Your task to perform on an android device: Go to internet settings Image 0: 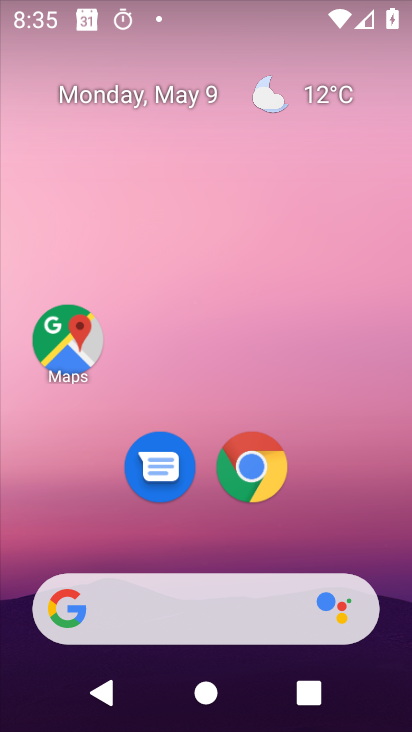
Step 0: drag from (337, 554) to (316, 2)
Your task to perform on an android device: Go to internet settings Image 1: 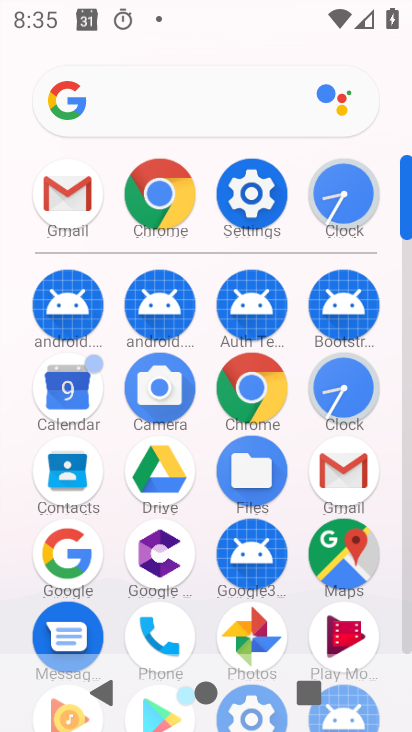
Step 1: click (250, 204)
Your task to perform on an android device: Go to internet settings Image 2: 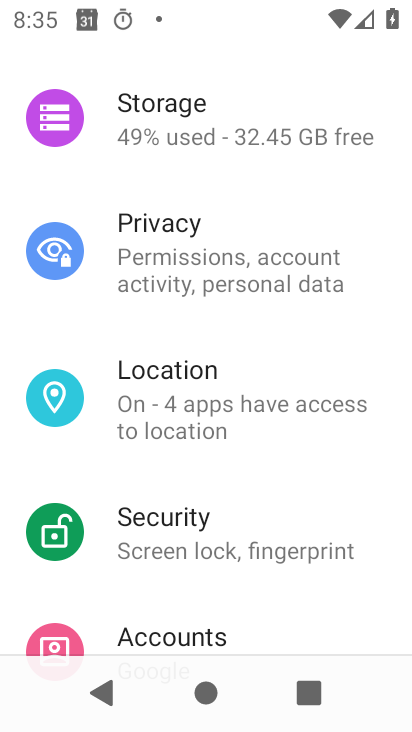
Step 2: drag from (371, 206) to (377, 477)
Your task to perform on an android device: Go to internet settings Image 3: 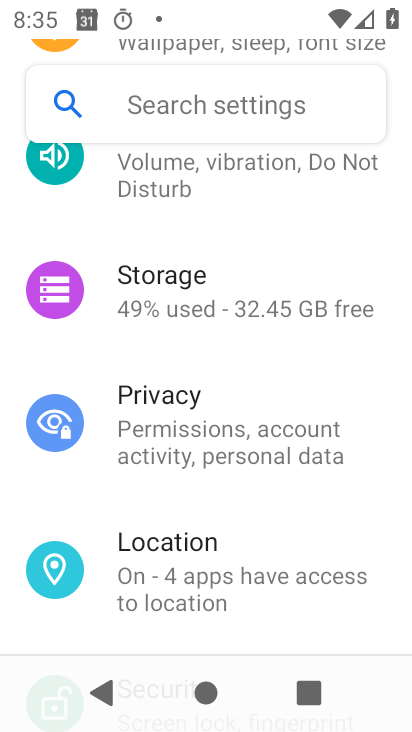
Step 3: drag from (353, 276) to (370, 602)
Your task to perform on an android device: Go to internet settings Image 4: 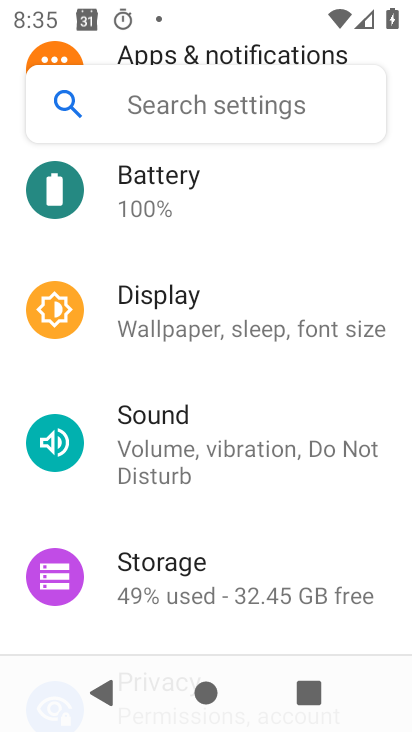
Step 4: drag from (361, 277) to (359, 599)
Your task to perform on an android device: Go to internet settings Image 5: 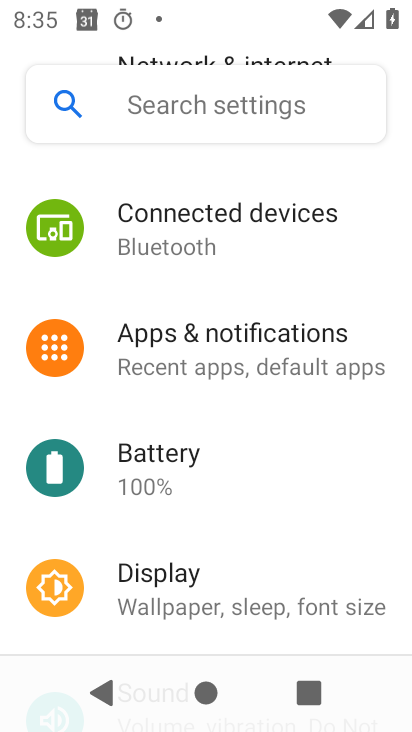
Step 5: drag from (320, 297) to (318, 578)
Your task to perform on an android device: Go to internet settings Image 6: 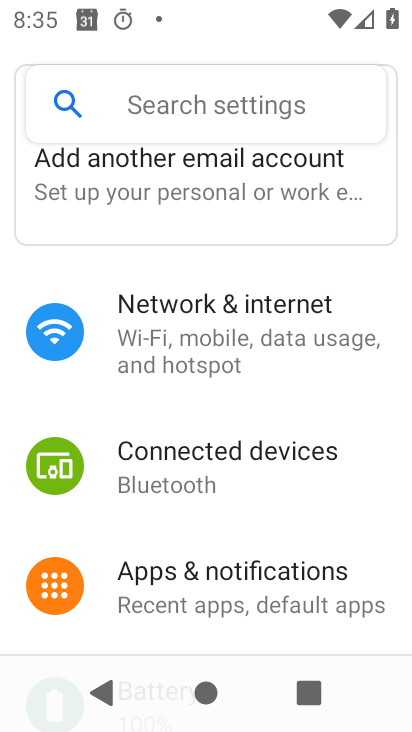
Step 6: click (237, 337)
Your task to perform on an android device: Go to internet settings Image 7: 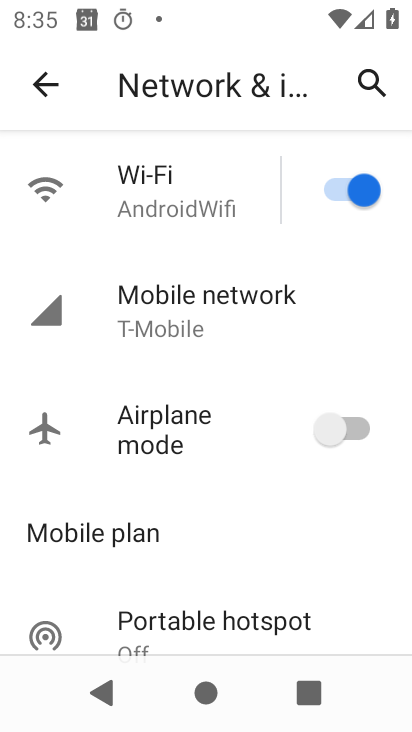
Step 7: task complete